Your task to perform on an android device: Go to accessibility settings Image 0: 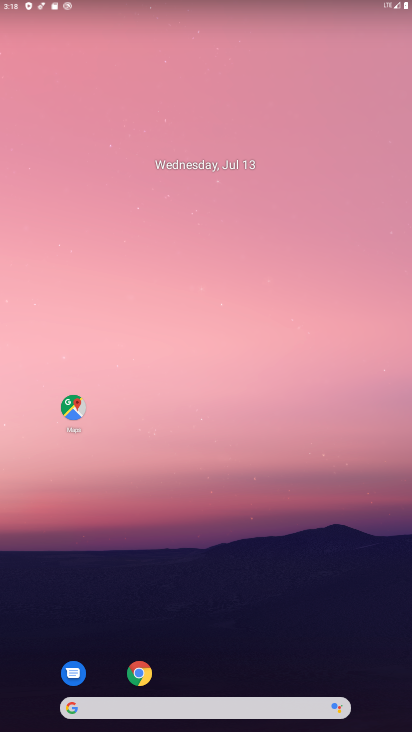
Step 0: drag from (202, 727) to (198, 137)
Your task to perform on an android device: Go to accessibility settings Image 1: 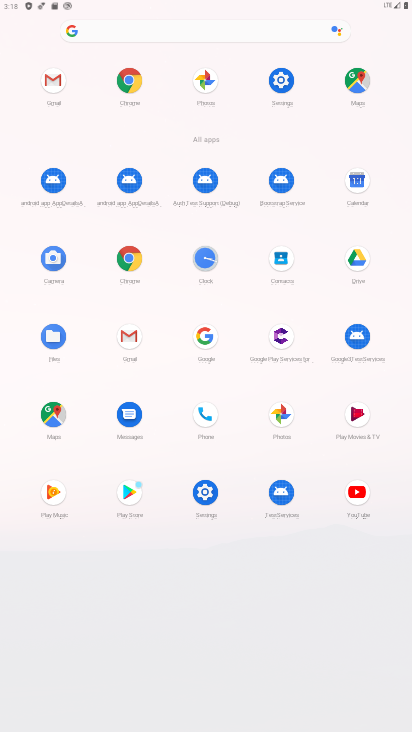
Step 1: click (286, 75)
Your task to perform on an android device: Go to accessibility settings Image 2: 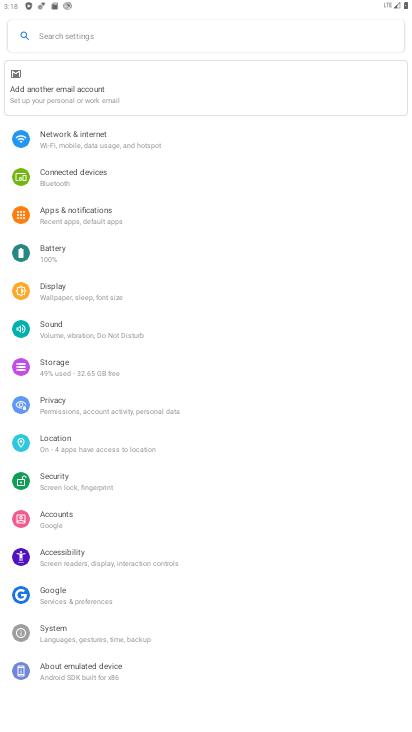
Step 2: click (74, 555)
Your task to perform on an android device: Go to accessibility settings Image 3: 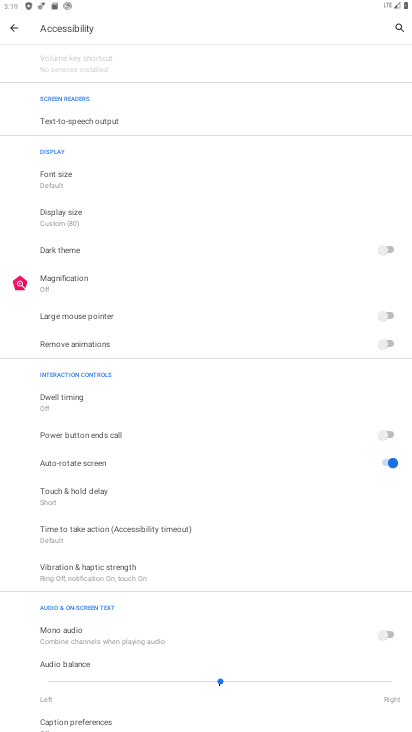
Step 3: task complete